Your task to perform on an android device: What's on my calendar tomorrow? Image 0: 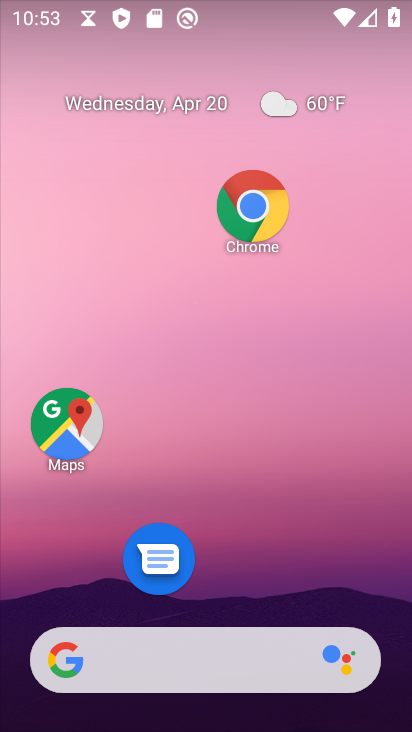
Step 0: drag from (292, 608) to (266, 25)
Your task to perform on an android device: What's on my calendar tomorrow? Image 1: 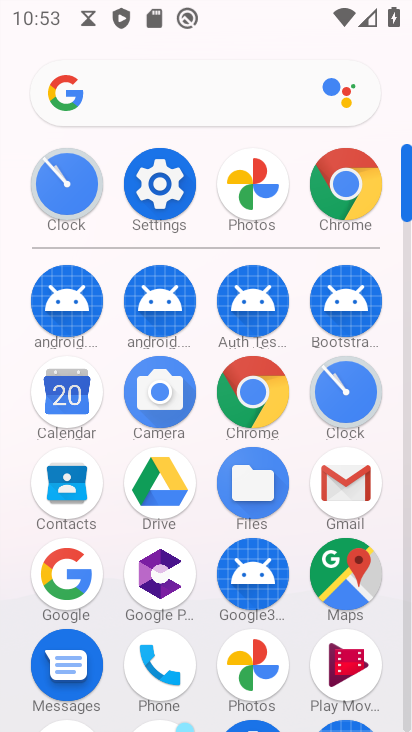
Step 1: click (57, 400)
Your task to perform on an android device: What's on my calendar tomorrow? Image 2: 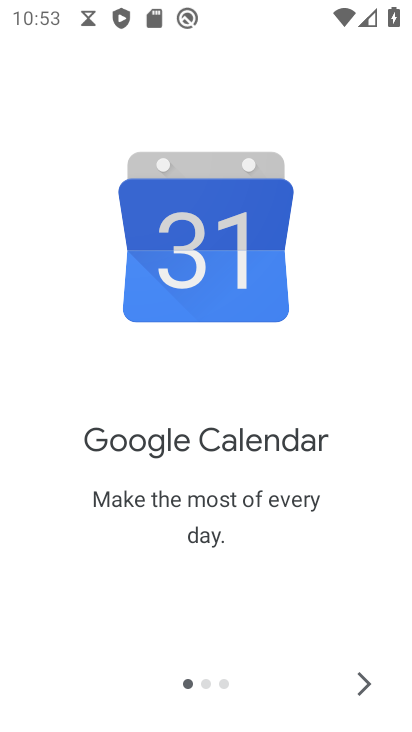
Step 2: click (357, 674)
Your task to perform on an android device: What's on my calendar tomorrow? Image 3: 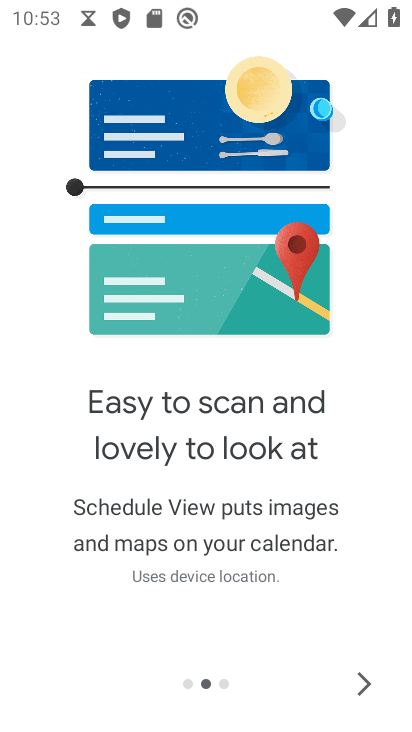
Step 3: click (357, 674)
Your task to perform on an android device: What's on my calendar tomorrow? Image 4: 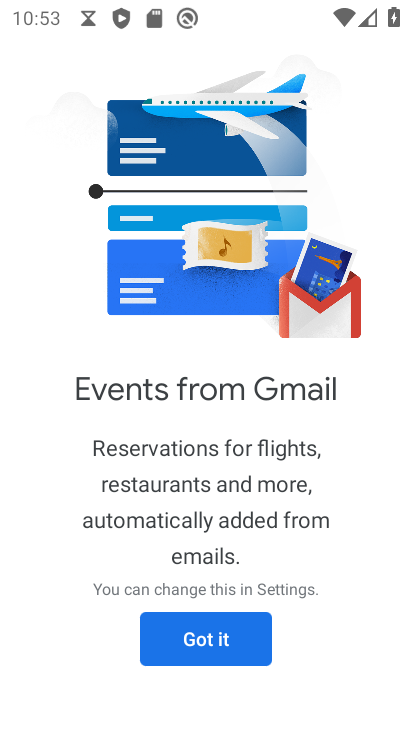
Step 4: click (235, 652)
Your task to perform on an android device: What's on my calendar tomorrow? Image 5: 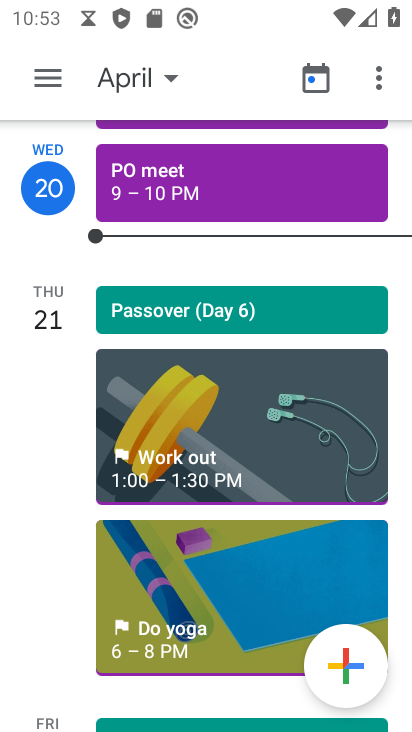
Step 5: click (171, 75)
Your task to perform on an android device: What's on my calendar tomorrow? Image 6: 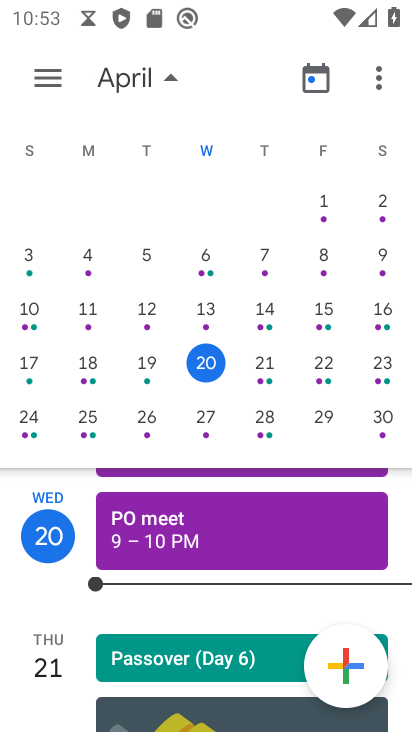
Step 6: click (317, 362)
Your task to perform on an android device: What's on my calendar tomorrow? Image 7: 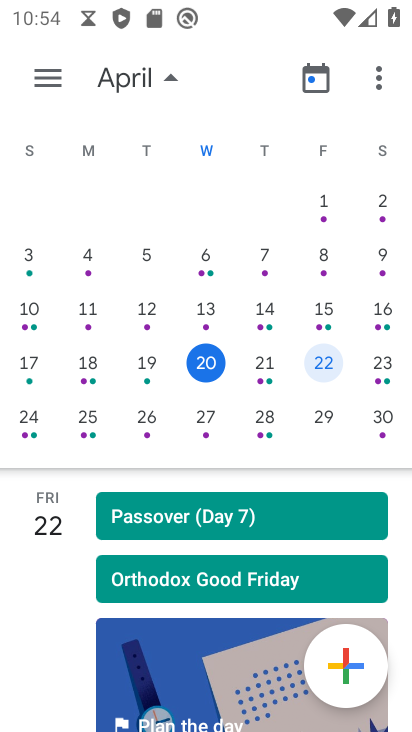
Step 7: task complete